Your task to perform on an android device: change notification settings in the gmail app Image 0: 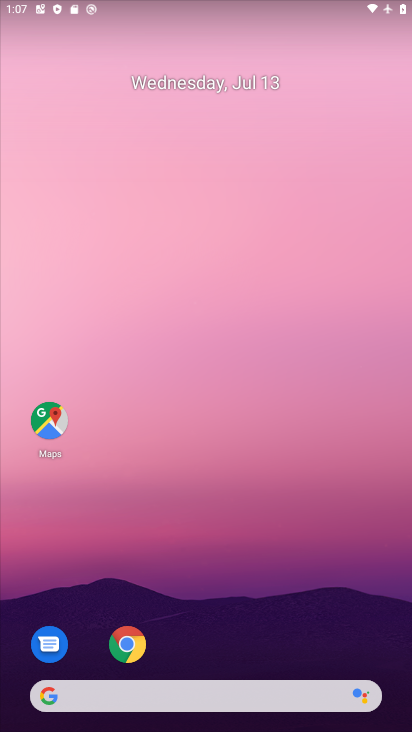
Step 0: drag from (307, 574) to (259, 101)
Your task to perform on an android device: change notification settings in the gmail app Image 1: 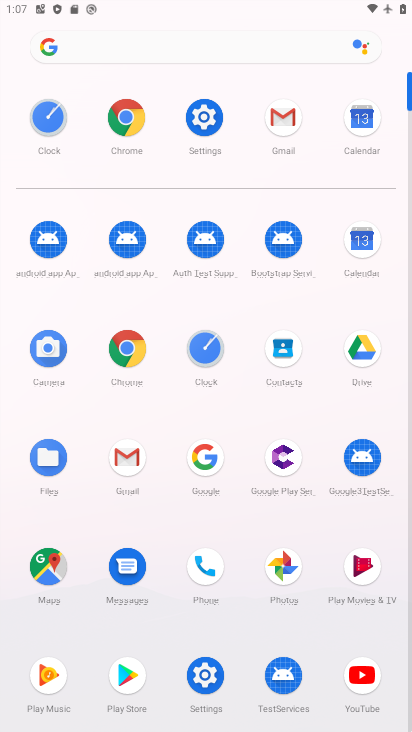
Step 1: click (281, 116)
Your task to perform on an android device: change notification settings in the gmail app Image 2: 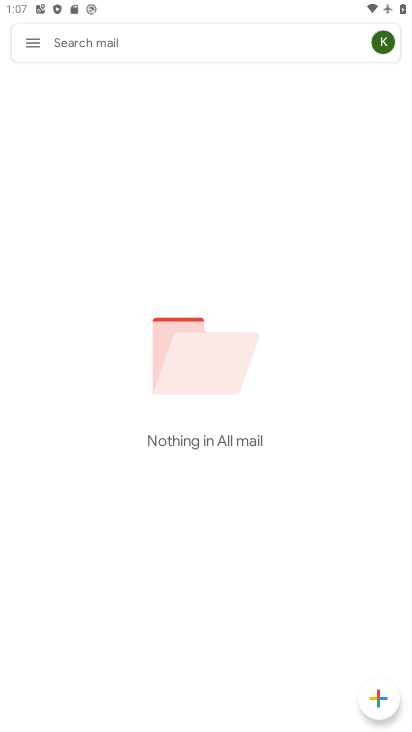
Step 2: click (33, 37)
Your task to perform on an android device: change notification settings in the gmail app Image 3: 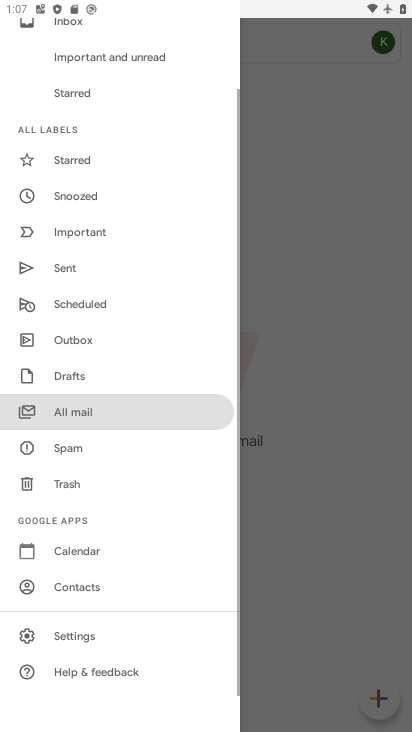
Step 3: click (71, 631)
Your task to perform on an android device: change notification settings in the gmail app Image 4: 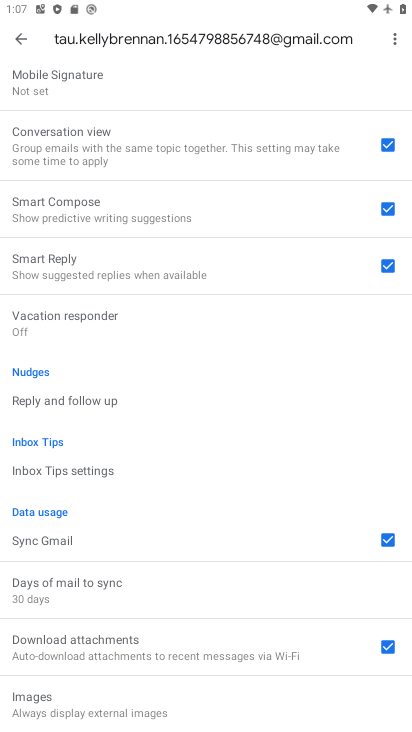
Step 4: drag from (121, 107) to (157, 605)
Your task to perform on an android device: change notification settings in the gmail app Image 5: 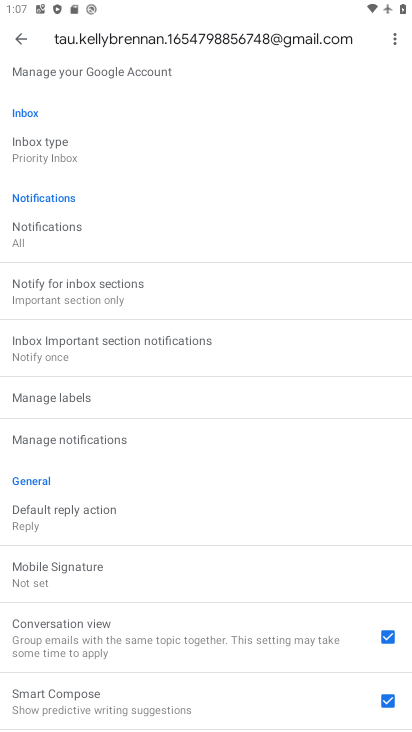
Step 5: drag from (146, 157) to (200, 541)
Your task to perform on an android device: change notification settings in the gmail app Image 6: 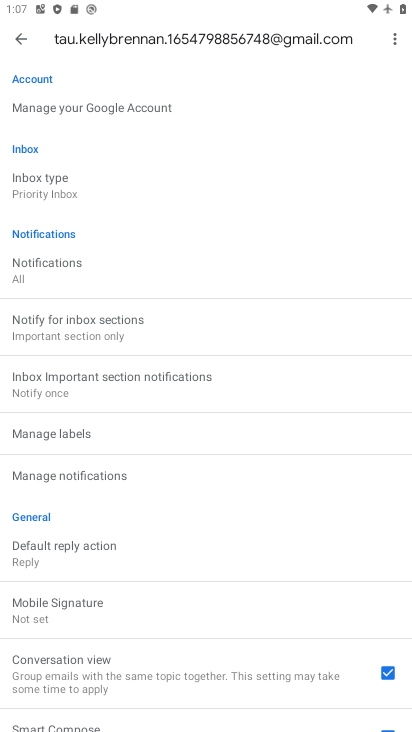
Step 6: click (114, 475)
Your task to perform on an android device: change notification settings in the gmail app Image 7: 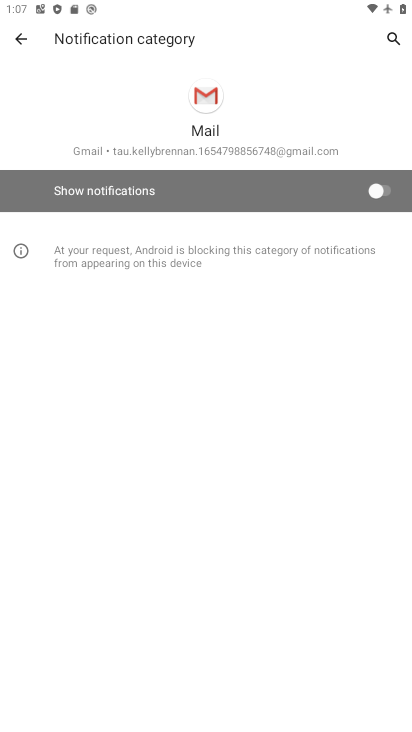
Step 7: click (363, 183)
Your task to perform on an android device: change notification settings in the gmail app Image 8: 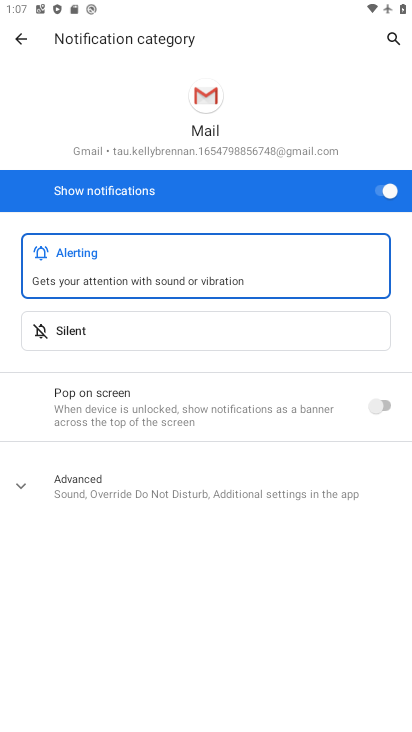
Step 8: task complete